Your task to perform on an android device: toggle javascript in the chrome app Image 0: 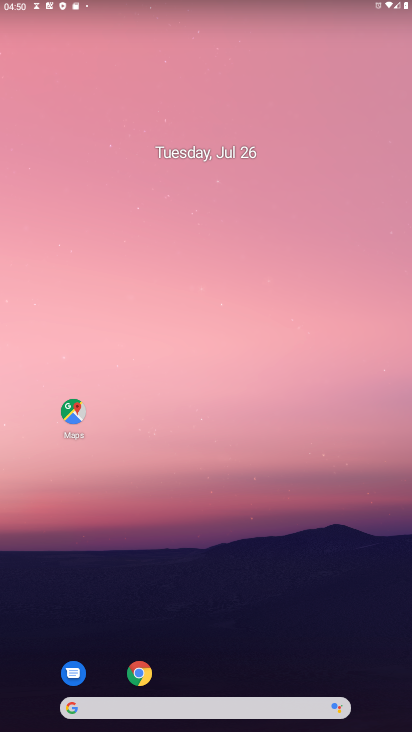
Step 0: click (140, 674)
Your task to perform on an android device: toggle javascript in the chrome app Image 1: 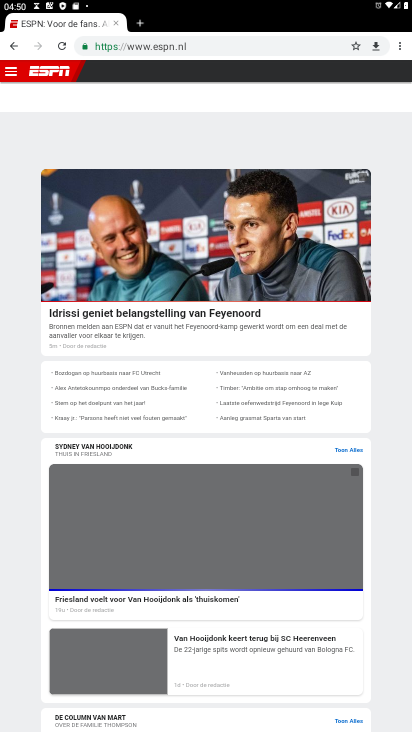
Step 1: click (399, 47)
Your task to perform on an android device: toggle javascript in the chrome app Image 2: 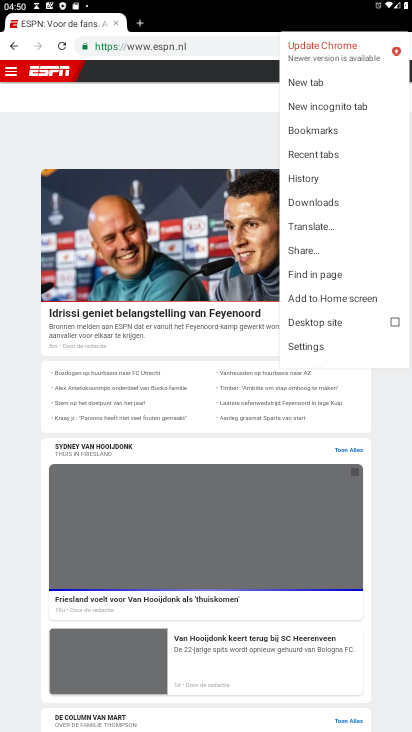
Step 2: click (310, 346)
Your task to perform on an android device: toggle javascript in the chrome app Image 3: 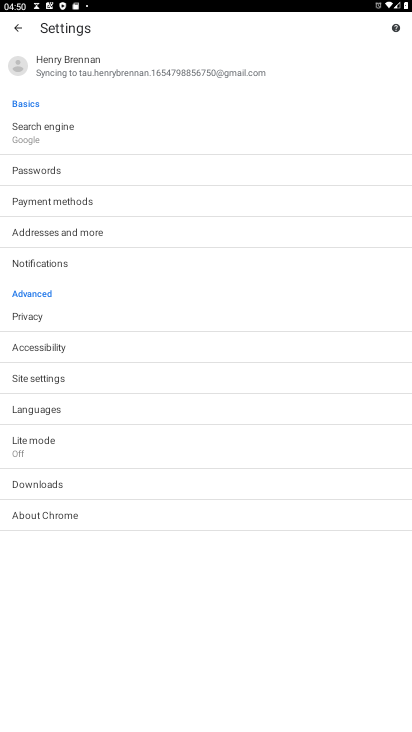
Step 3: click (41, 381)
Your task to perform on an android device: toggle javascript in the chrome app Image 4: 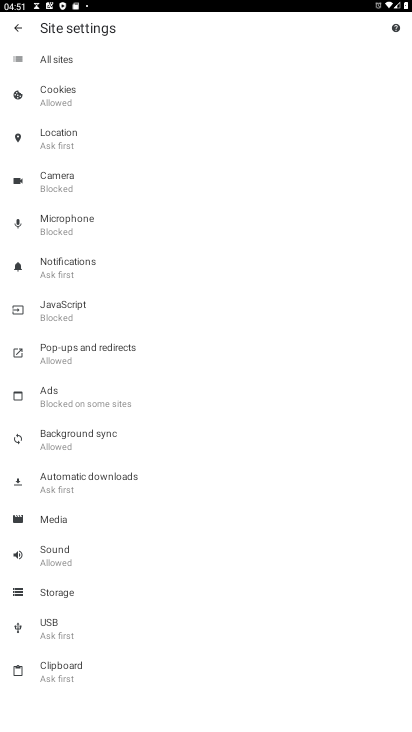
Step 4: click (71, 311)
Your task to perform on an android device: toggle javascript in the chrome app Image 5: 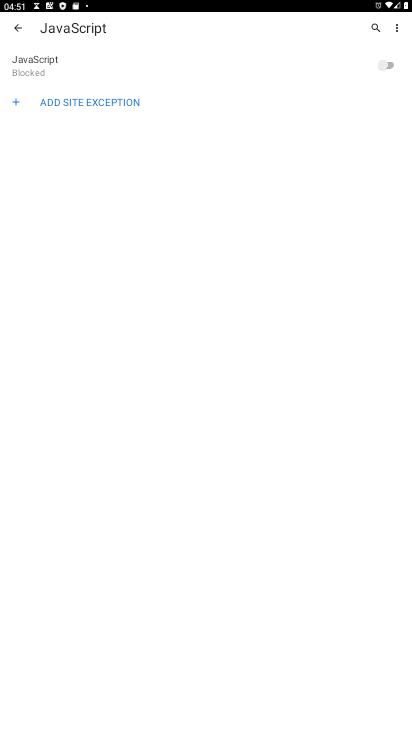
Step 5: click (386, 64)
Your task to perform on an android device: toggle javascript in the chrome app Image 6: 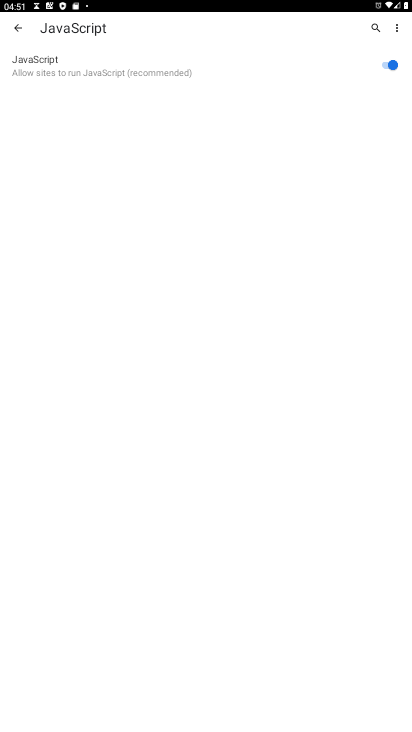
Step 6: task complete